Your task to perform on an android device: turn off smart reply in the gmail app Image 0: 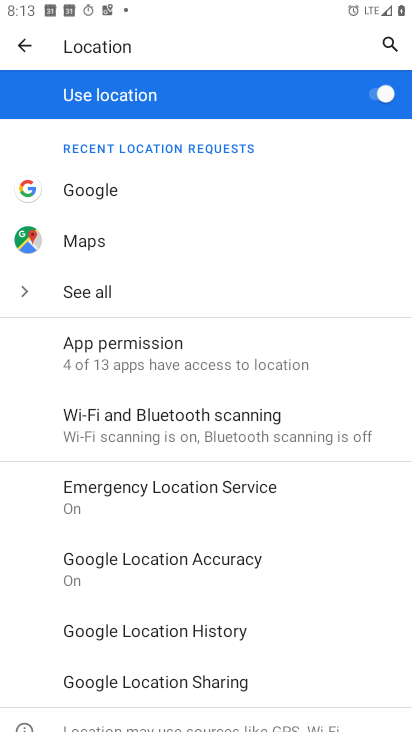
Step 0: press home button
Your task to perform on an android device: turn off smart reply in the gmail app Image 1: 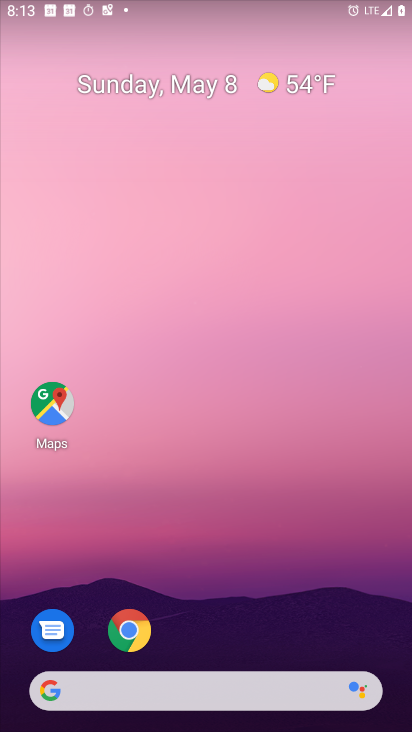
Step 1: drag from (218, 676) to (131, 58)
Your task to perform on an android device: turn off smart reply in the gmail app Image 2: 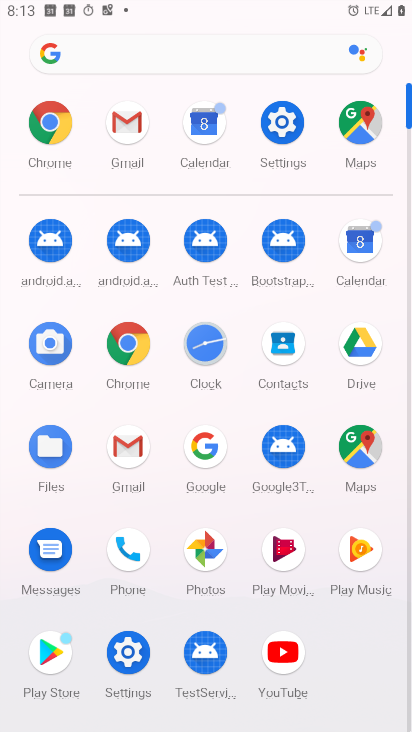
Step 2: click (115, 444)
Your task to perform on an android device: turn off smart reply in the gmail app Image 3: 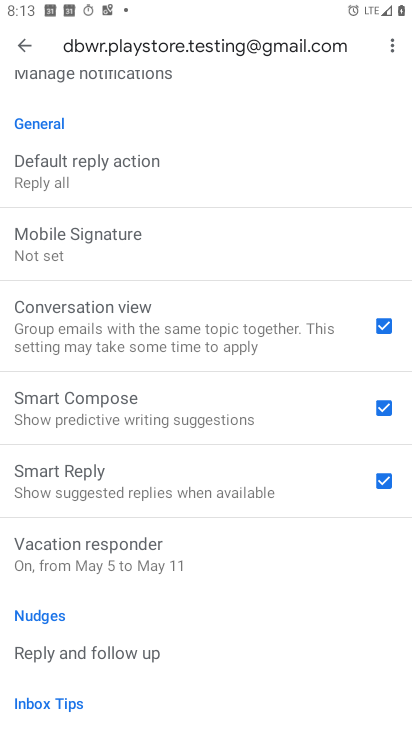
Step 3: click (380, 472)
Your task to perform on an android device: turn off smart reply in the gmail app Image 4: 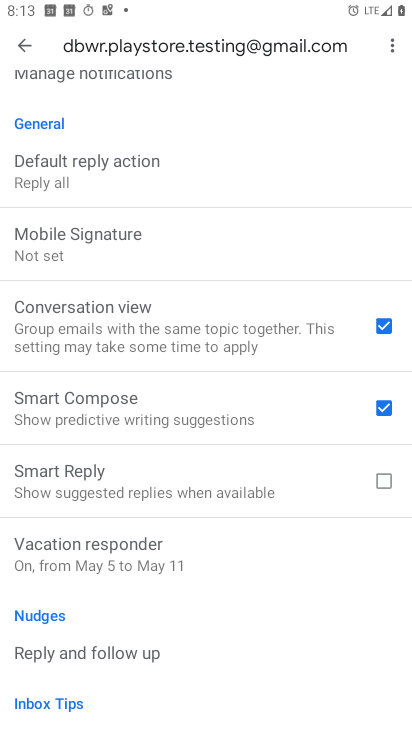
Step 4: task complete